Your task to perform on an android device: change the clock display to show seconds Image 0: 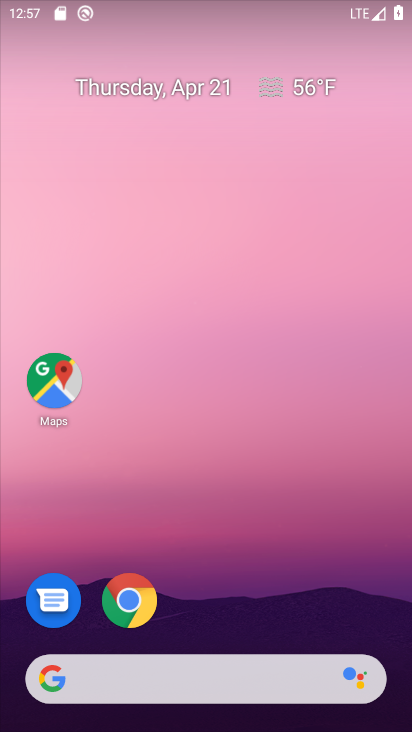
Step 0: drag from (360, 577) to (345, 110)
Your task to perform on an android device: change the clock display to show seconds Image 1: 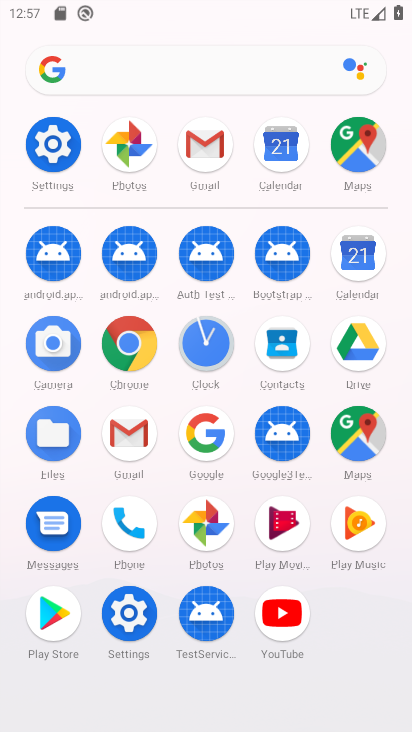
Step 1: click (215, 344)
Your task to perform on an android device: change the clock display to show seconds Image 2: 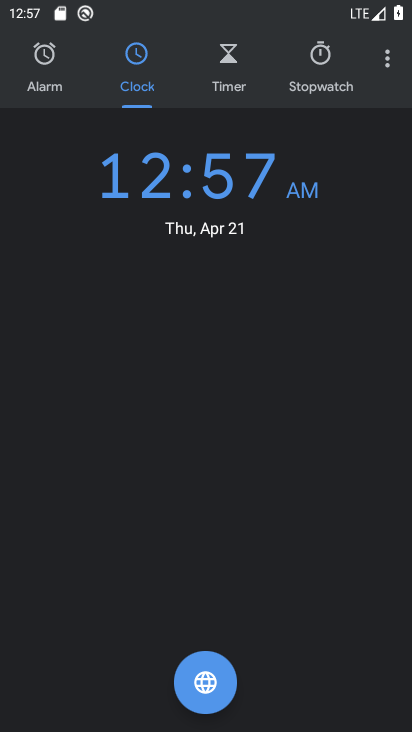
Step 2: click (389, 62)
Your task to perform on an android device: change the clock display to show seconds Image 3: 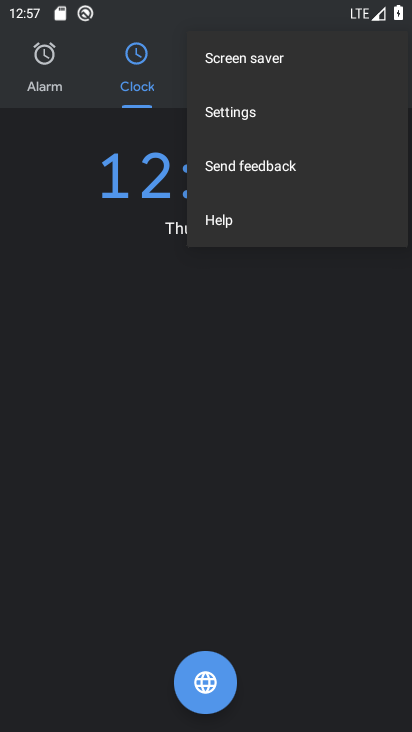
Step 3: click (305, 112)
Your task to perform on an android device: change the clock display to show seconds Image 4: 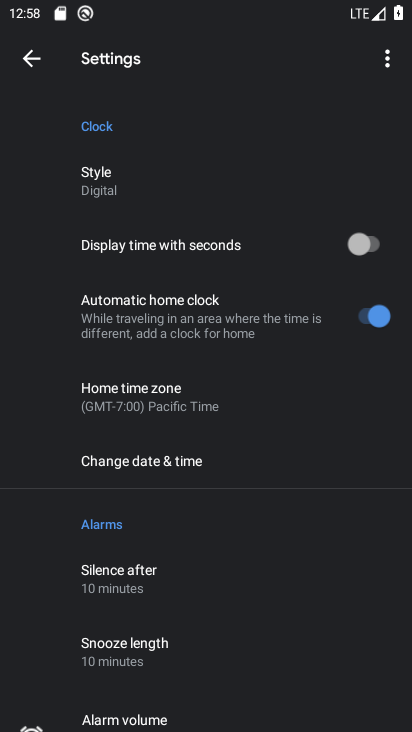
Step 4: click (367, 243)
Your task to perform on an android device: change the clock display to show seconds Image 5: 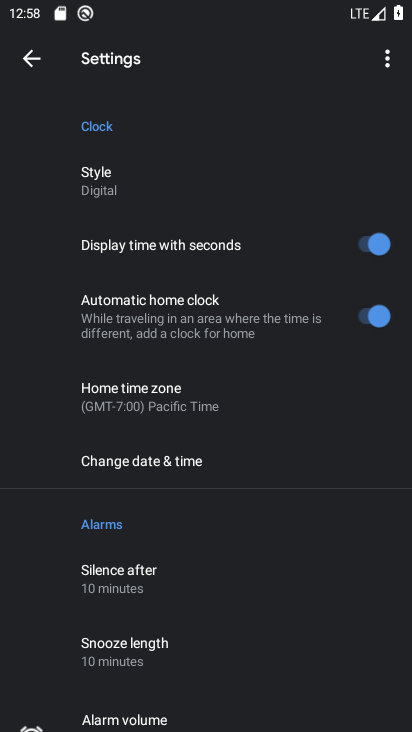
Step 5: click (40, 59)
Your task to perform on an android device: change the clock display to show seconds Image 6: 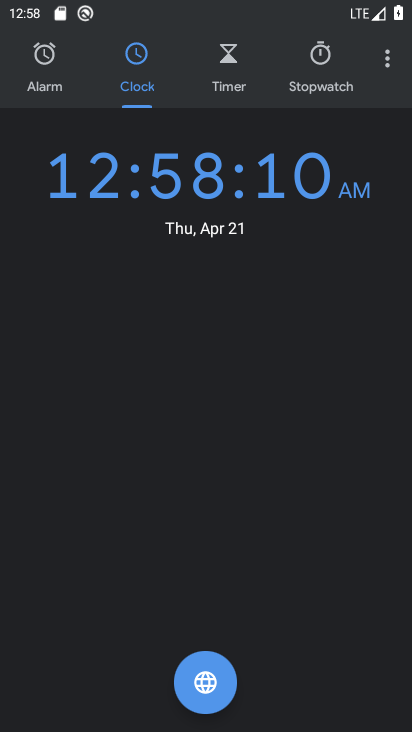
Step 6: task complete